Your task to perform on an android device: show emergency info Image 0: 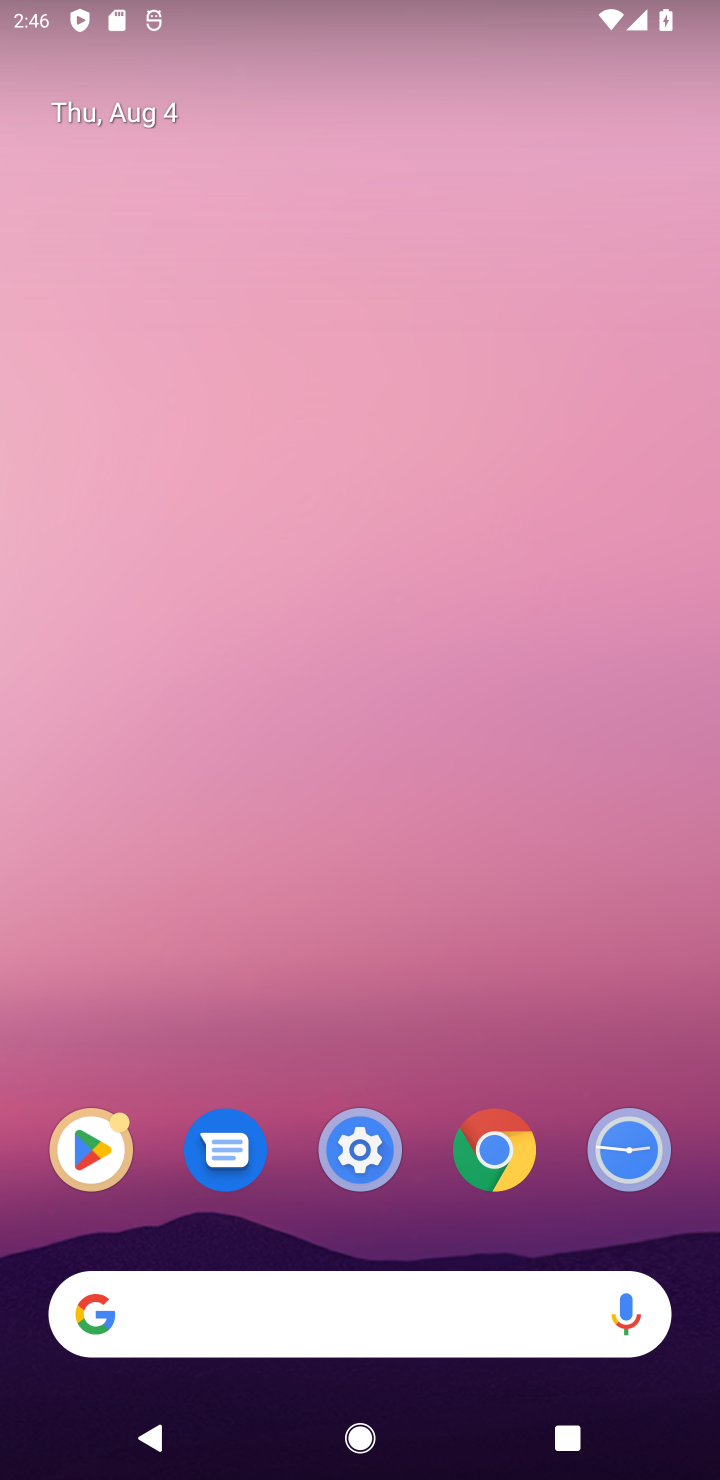
Step 0: drag from (375, 1201) to (604, 1435)
Your task to perform on an android device: show emergency info Image 1: 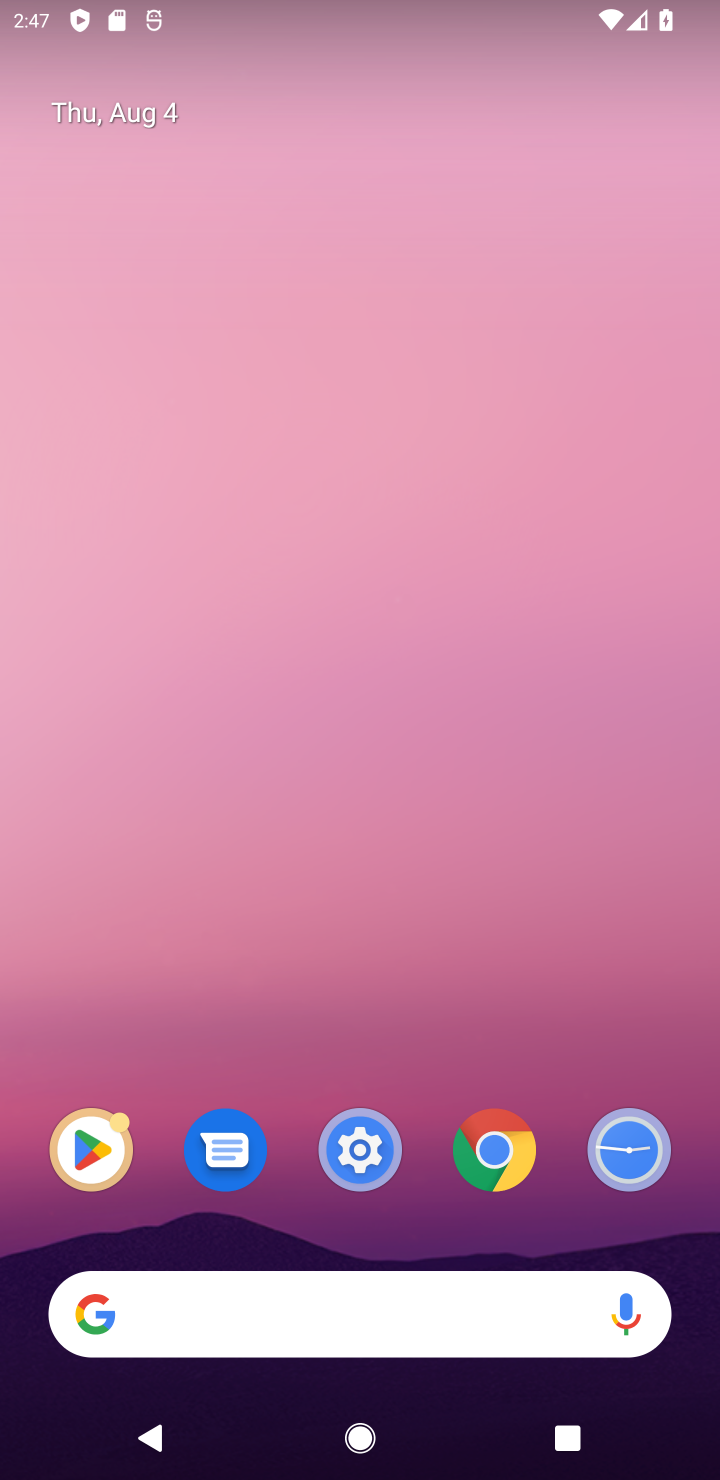
Step 1: drag from (485, 780) to (408, 470)
Your task to perform on an android device: show emergency info Image 2: 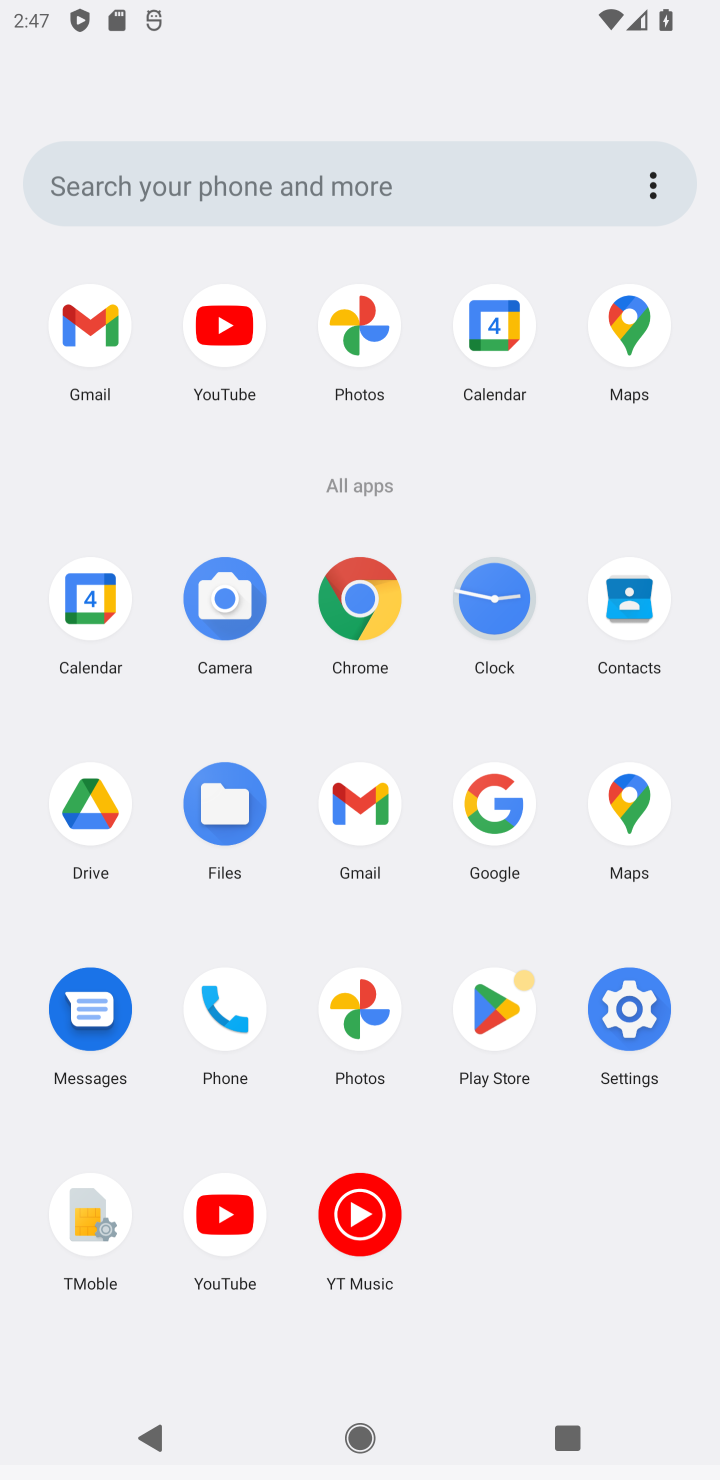
Step 2: drag from (395, 1020) to (338, 330)
Your task to perform on an android device: show emergency info Image 3: 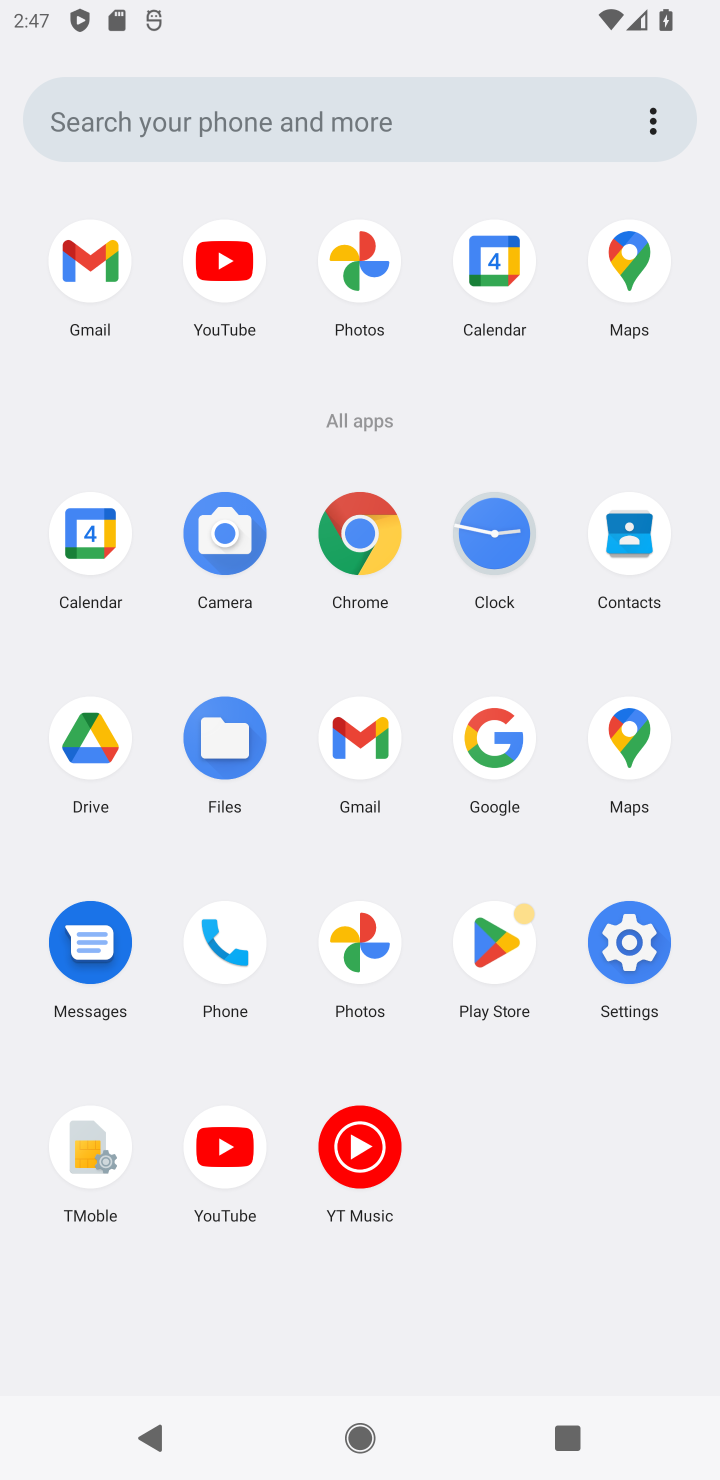
Step 3: click (635, 952)
Your task to perform on an android device: show emergency info Image 4: 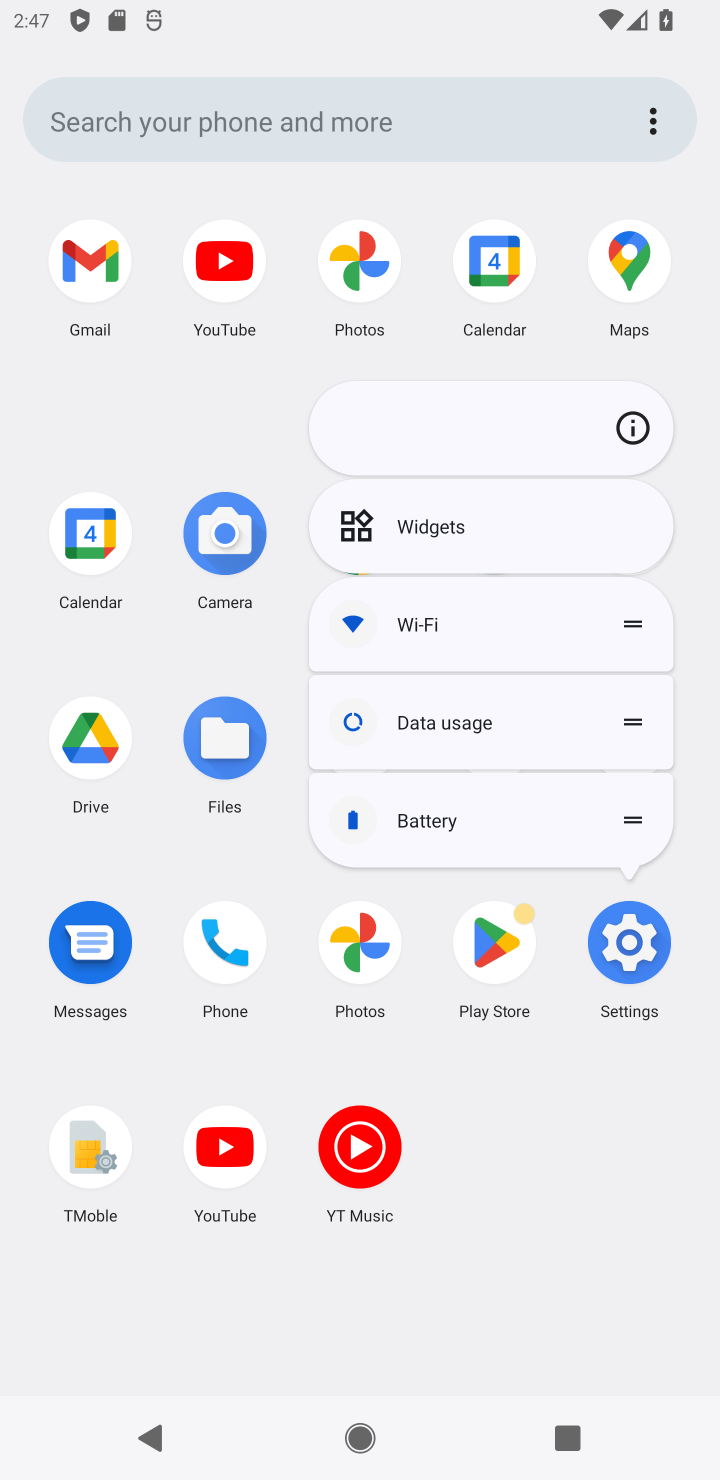
Step 4: click (627, 927)
Your task to perform on an android device: show emergency info Image 5: 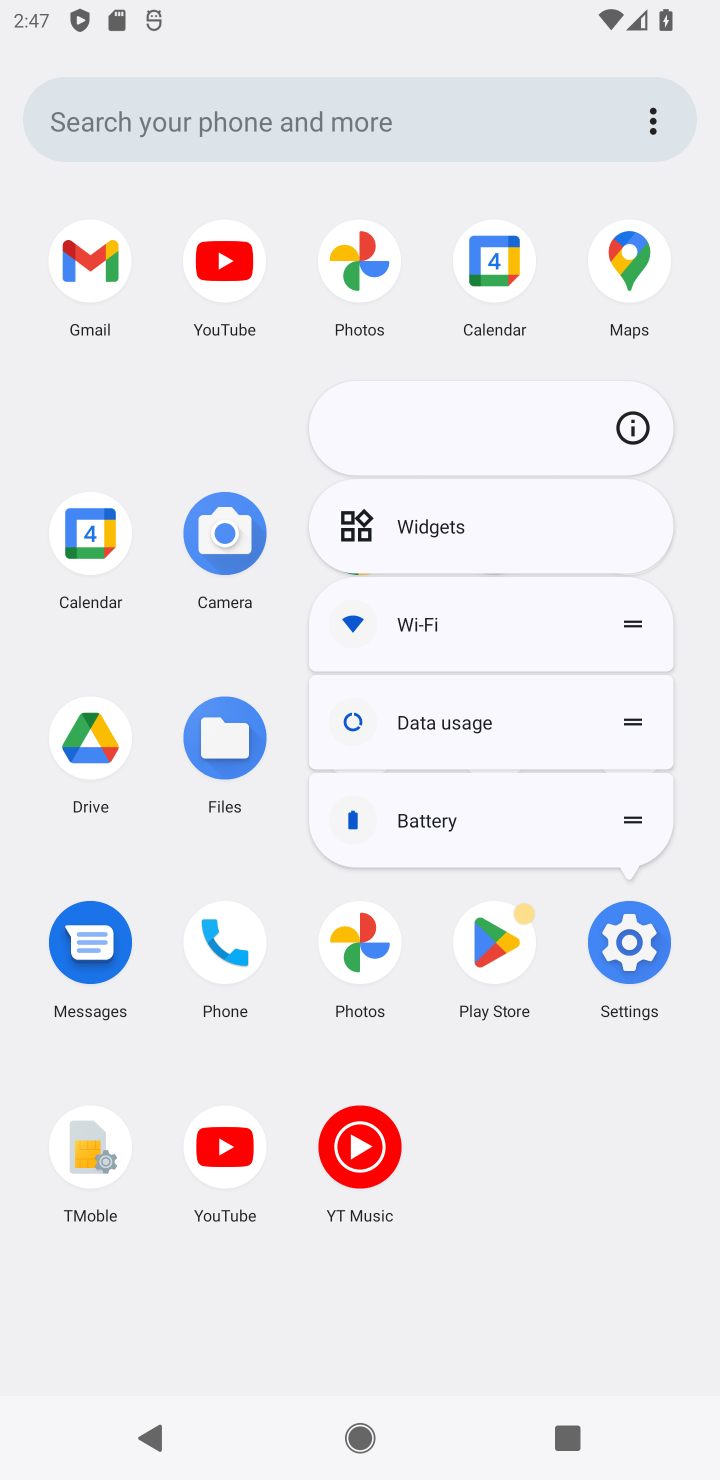
Step 5: click (625, 928)
Your task to perform on an android device: show emergency info Image 6: 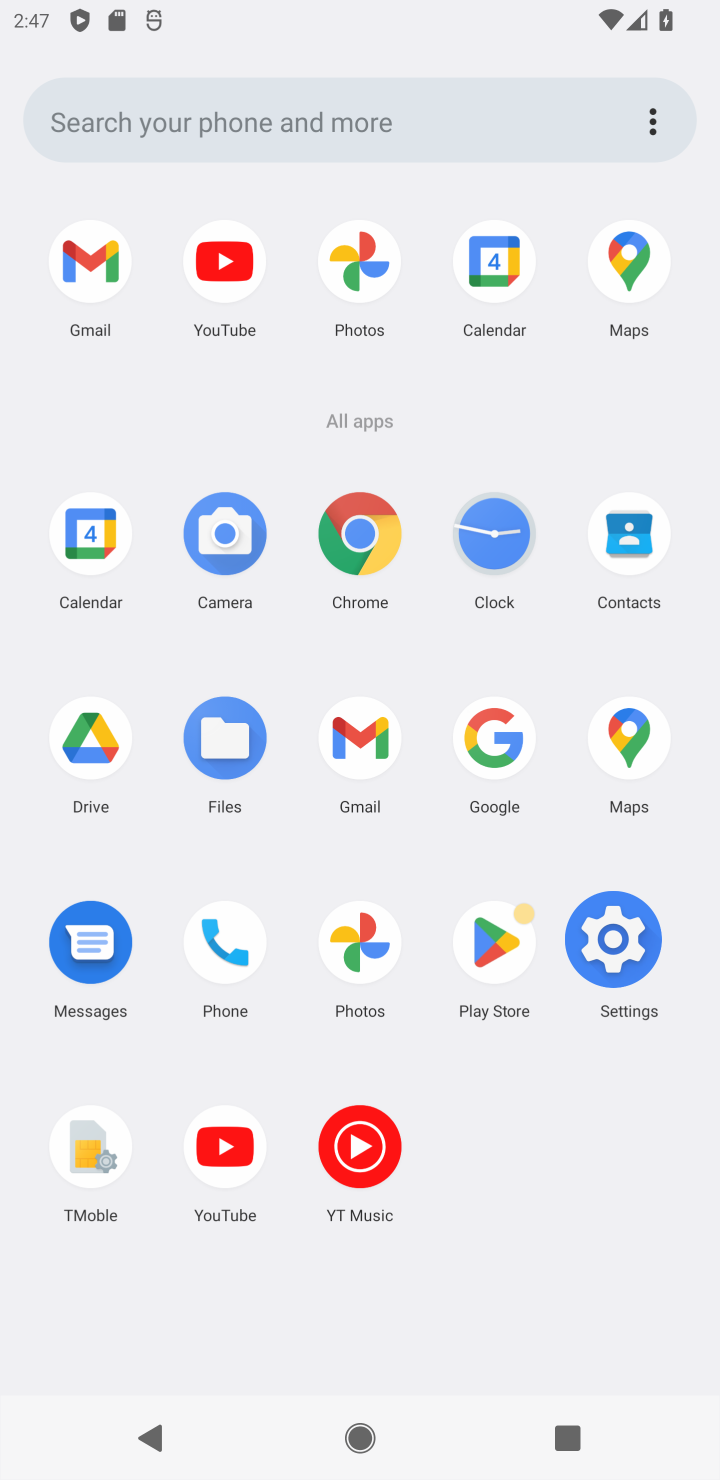
Step 6: click (619, 932)
Your task to perform on an android device: show emergency info Image 7: 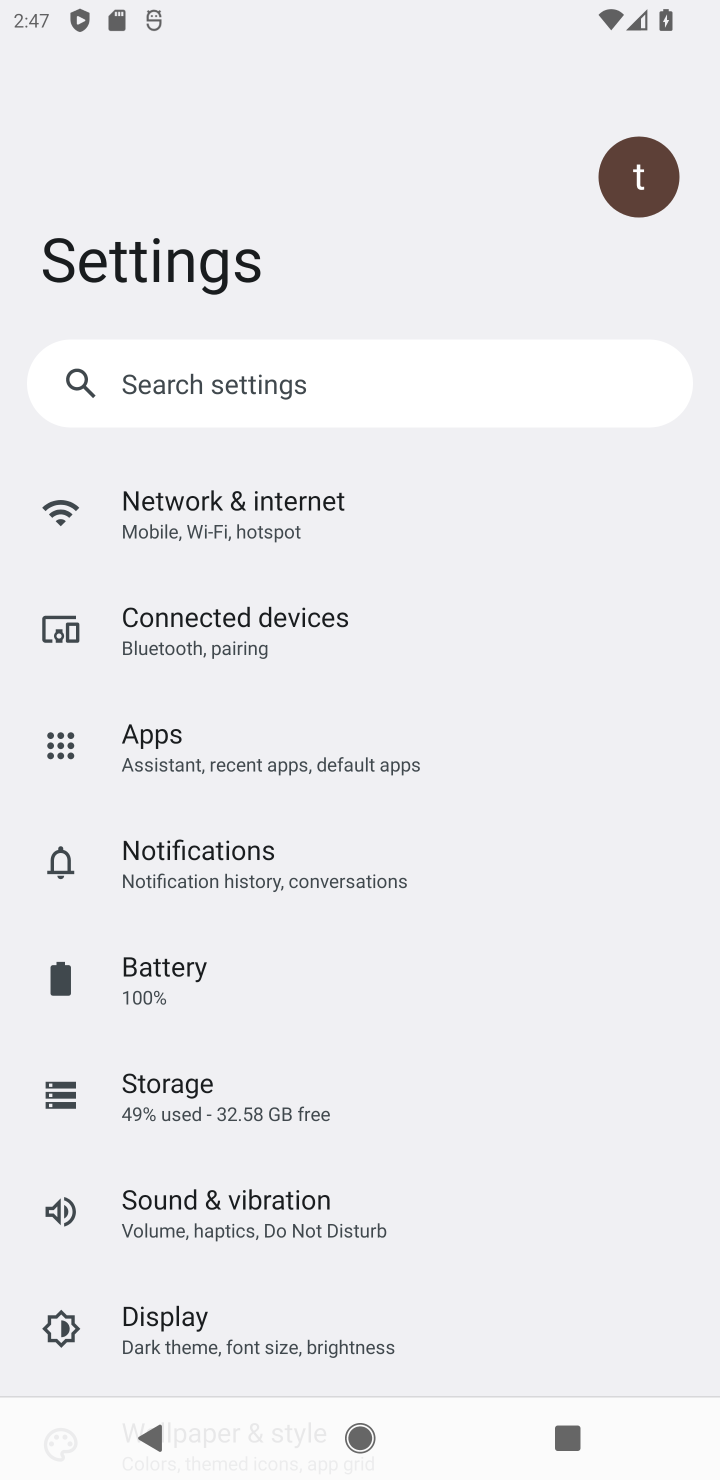
Step 7: drag from (452, 1131) to (444, 209)
Your task to perform on an android device: show emergency info Image 8: 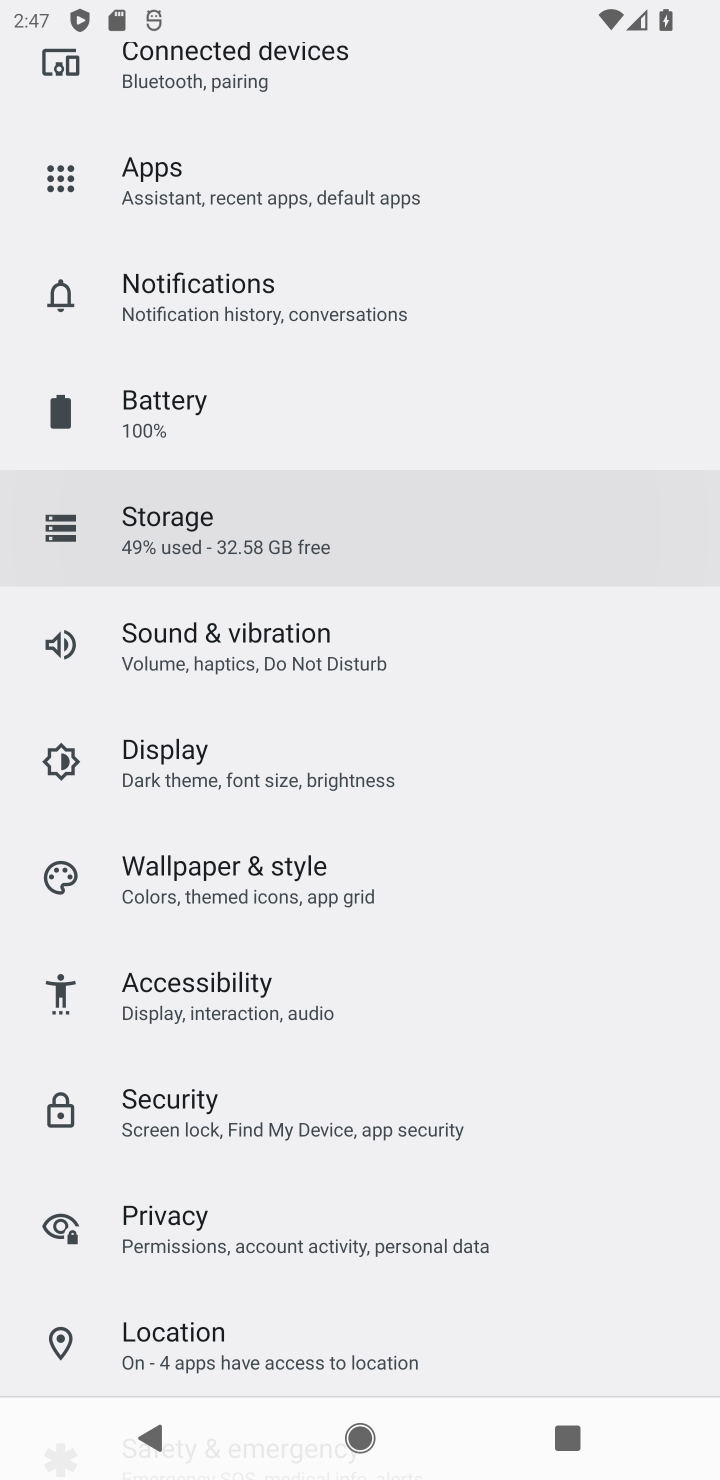
Step 8: drag from (482, 996) to (449, 326)
Your task to perform on an android device: show emergency info Image 9: 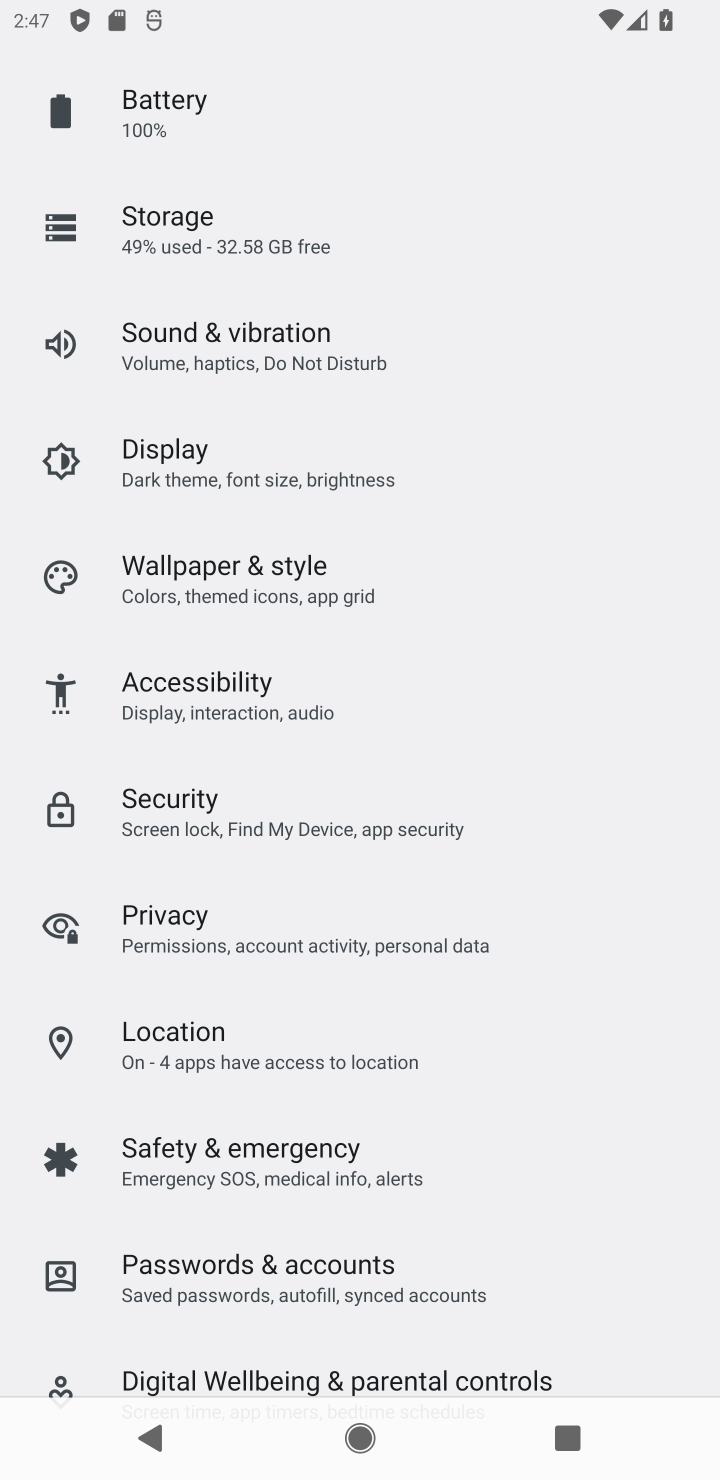
Step 9: drag from (457, 1082) to (357, 160)
Your task to perform on an android device: show emergency info Image 10: 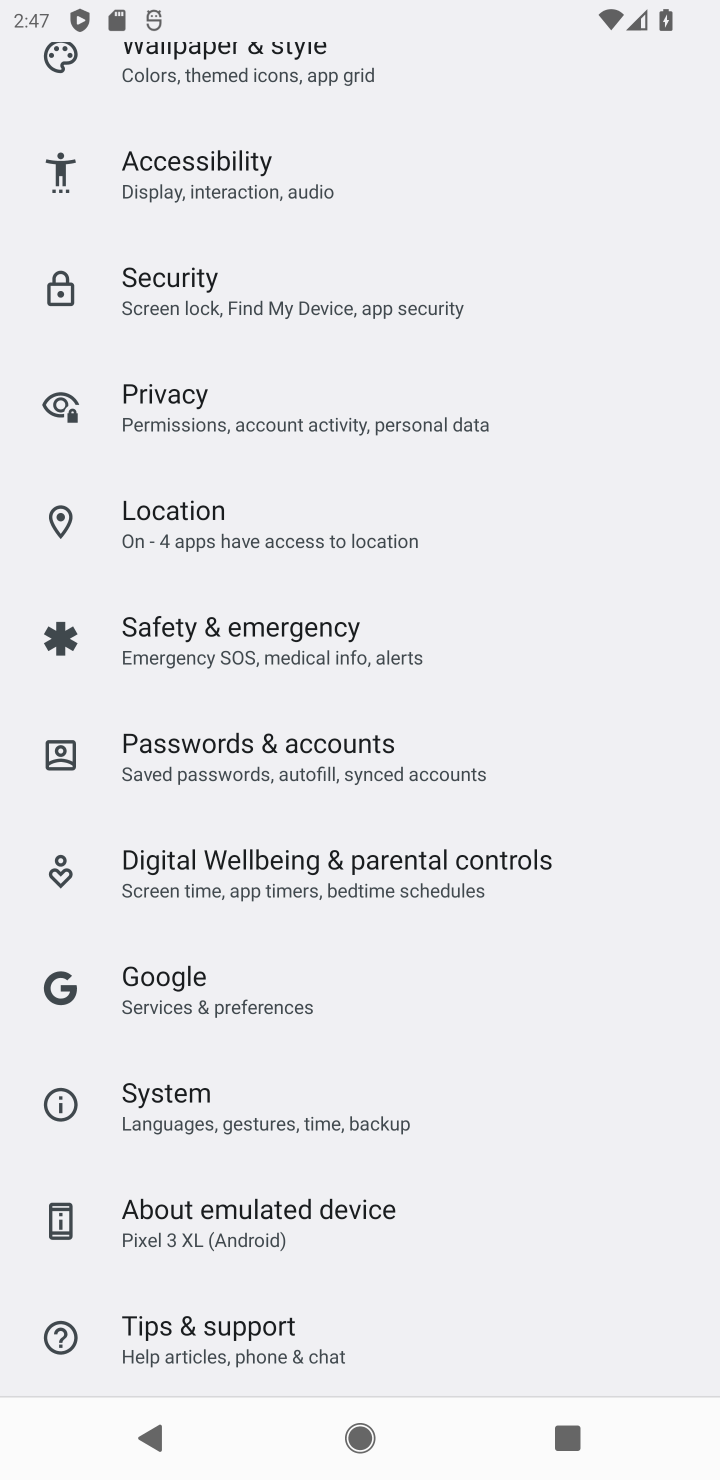
Step 10: drag from (312, 295) to (309, 892)
Your task to perform on an android device: show emergency info Image 11: 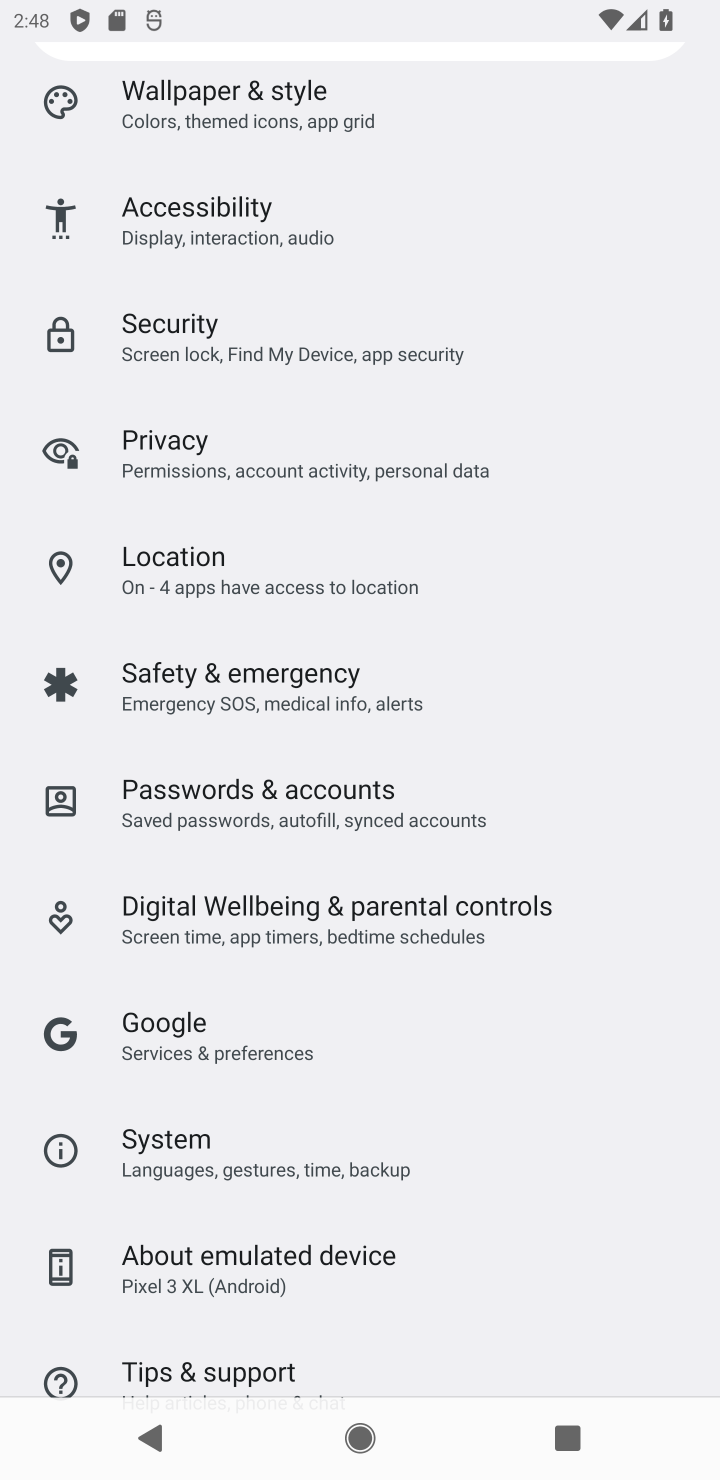
Step 11: click (218, 681)
Your task to perform on an android device: show emergency info Image 12: 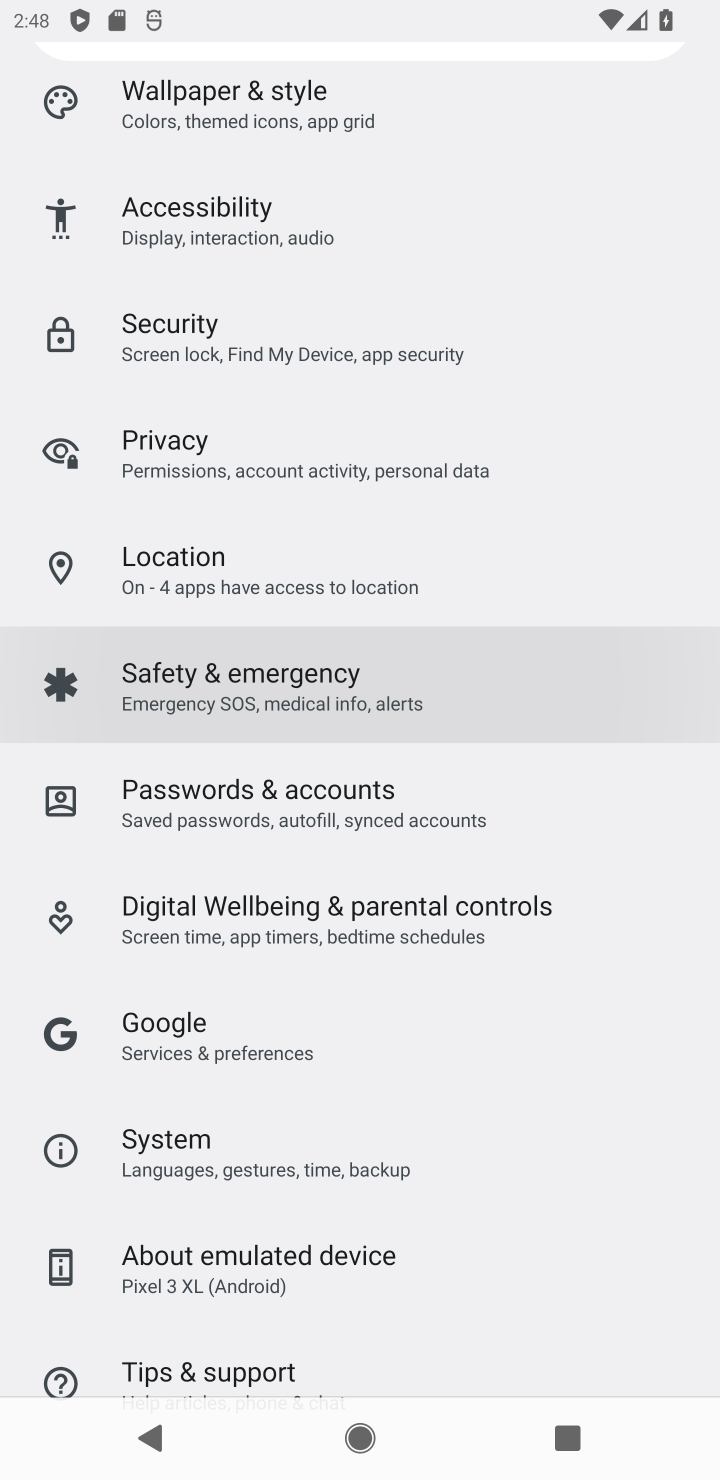
Step 12: click (218, 681)
Your task to perform on an android device: show emergency info Image 13: 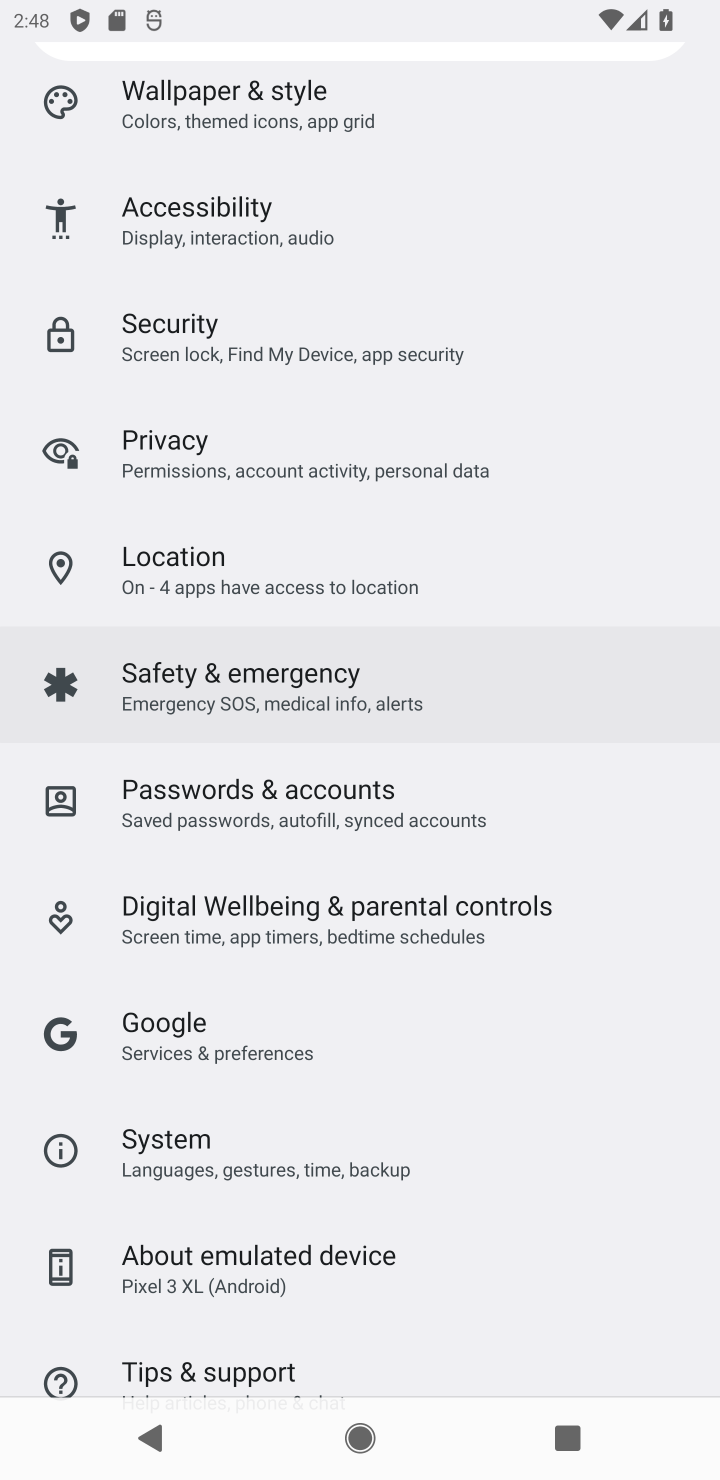
Step 13: click (220, 679)
Your task to perform on an android device: show emergency info Image 14: 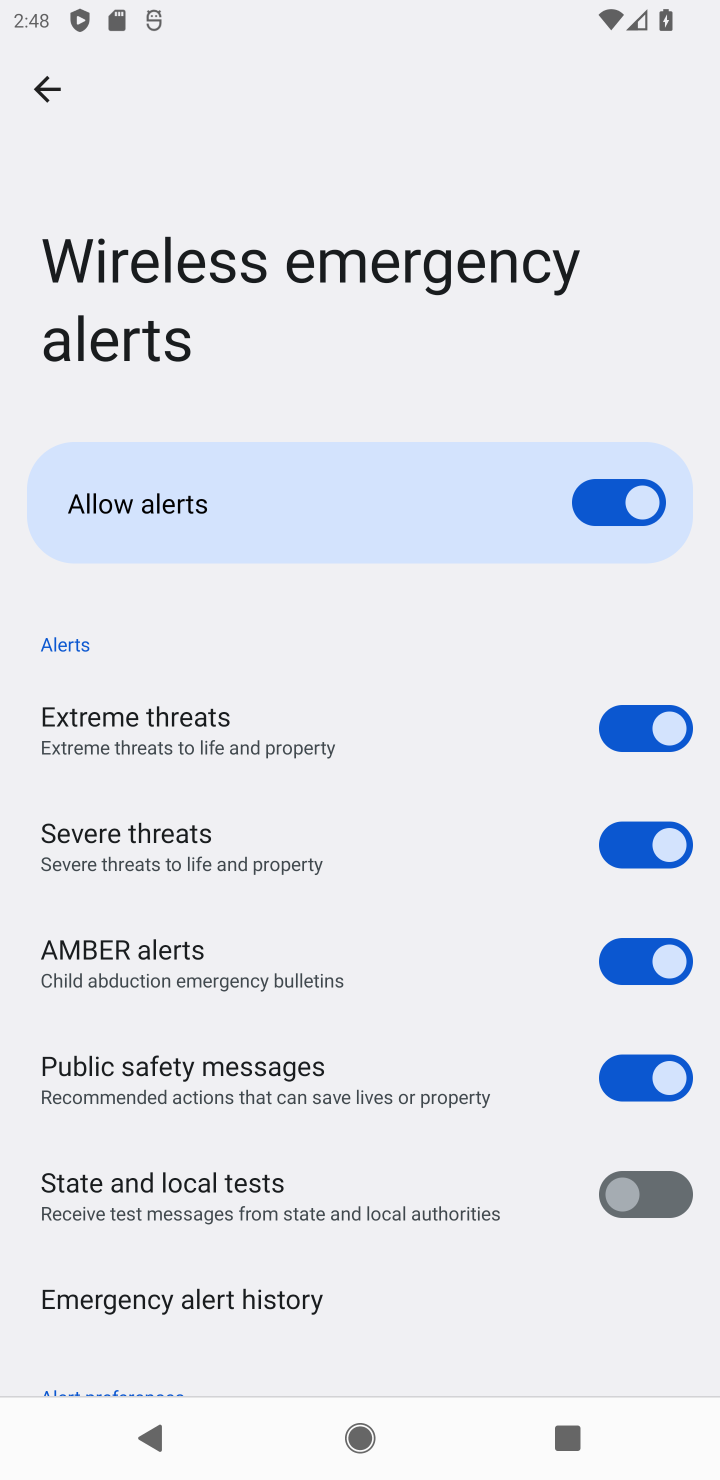
Step 14: click (54, 83)
Your task to perform on an android device: show emergency info Image 15: 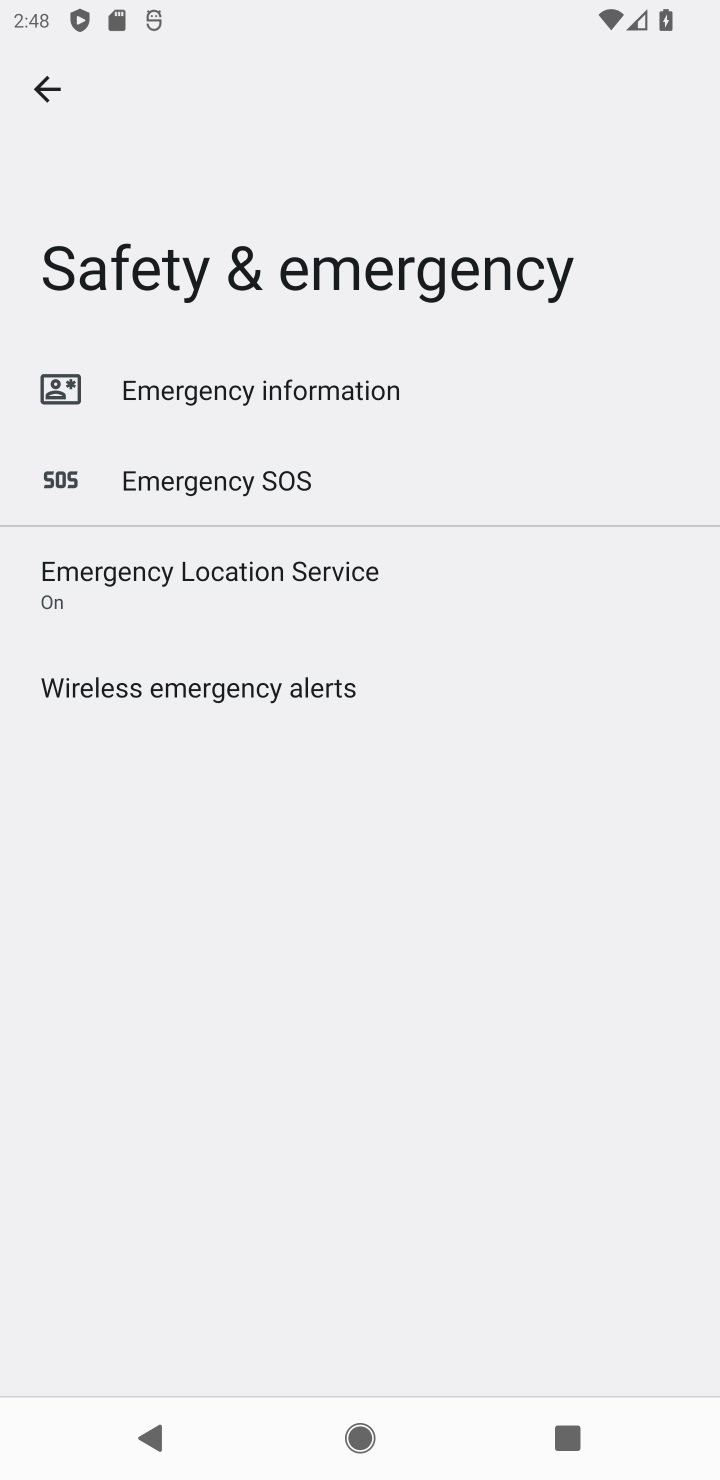
Step 15: click (50, 96)
Your task to perform on an android device: show emergency info Image 16: 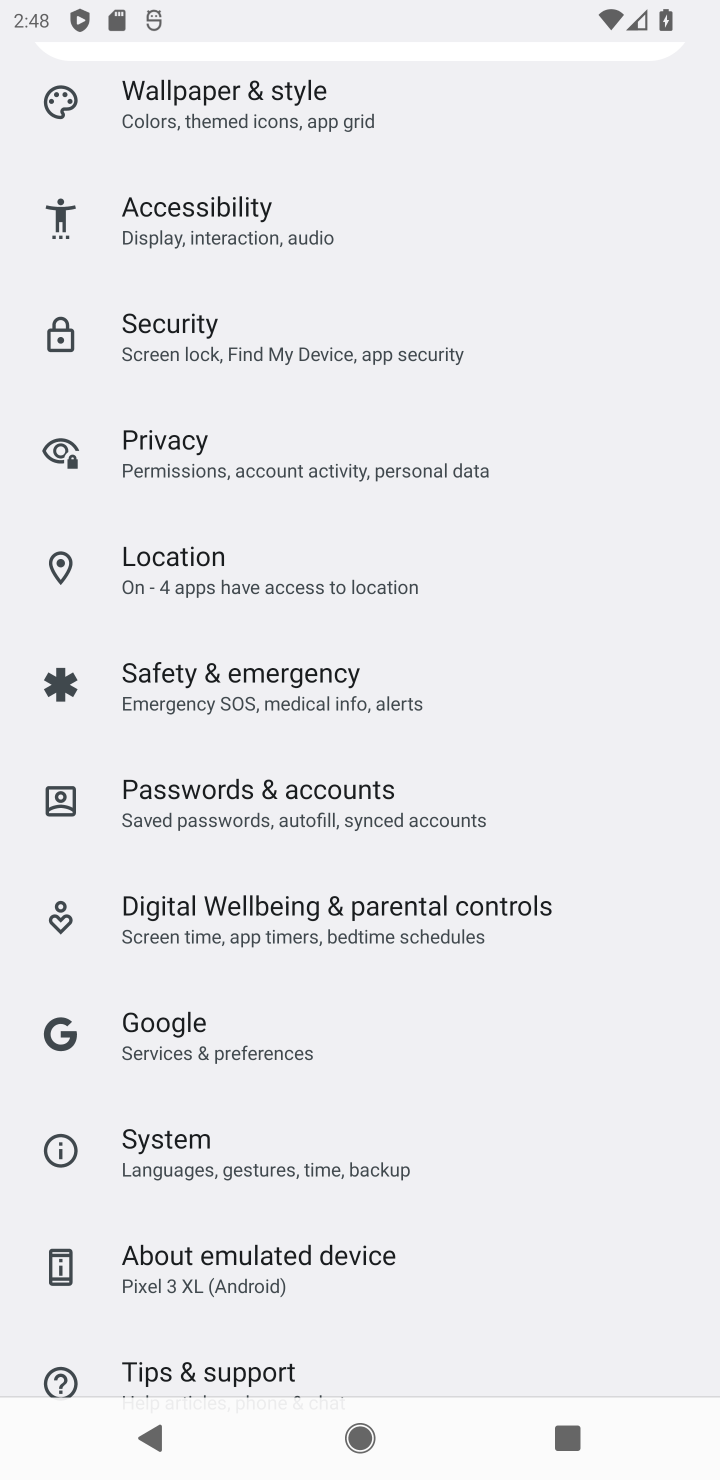
Step 16: task complete